Your task to perform on an android device: Open display settings Image 0: 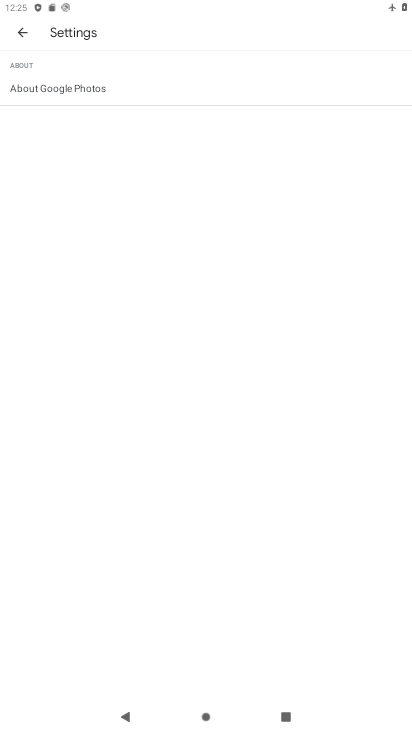
Step 0: press home button
Your task to perform on an android device: Open display settings Image 1: 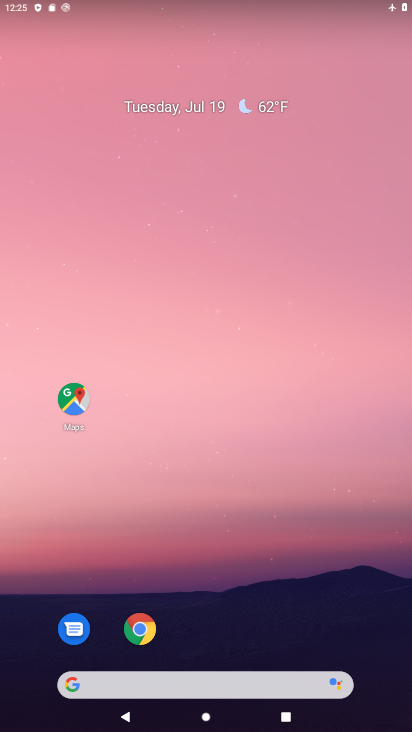
Step 1: drag from (205, 656) to (193, 85)
Your task to perform on an android device: Open display settings Image 2: 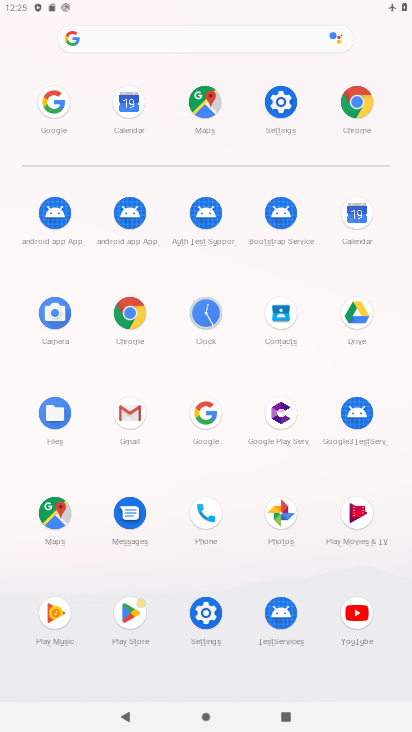
Step 2: click (284, 107)
Your task to perform on an android device: Open display settings Image 3: 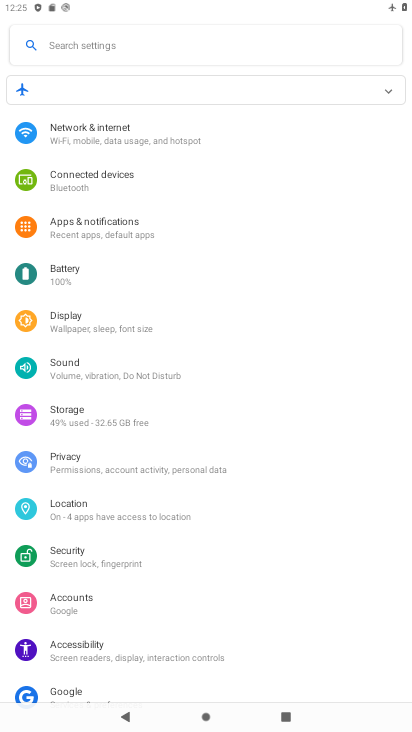
Step 3: click (78, 326)
Your task to perform on an android device: Open display settings Image 4: 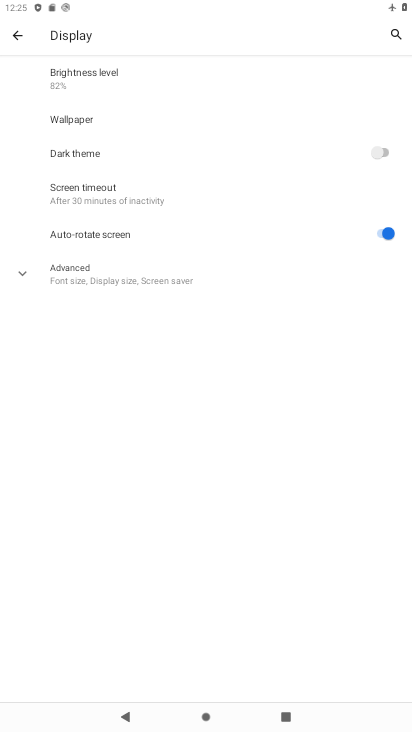
Step 4: click (61, 273)
Your task to perform on an android device: Open display settings Image 5: 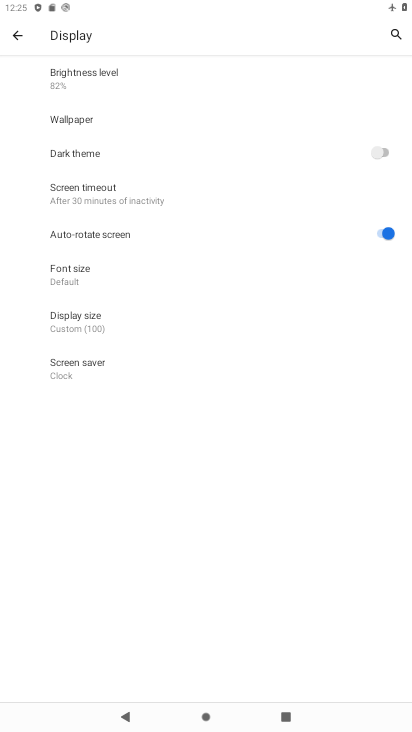
Step 5: task complete